Your task to perform on an android device: Turn on the flashlight Image 0: 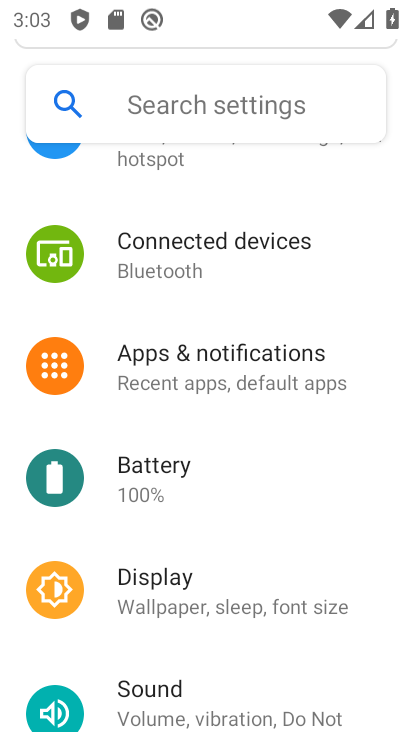
Step 0: click (212, 114)
Your task to perform on an android device: Turn on the flashlight Image 1: 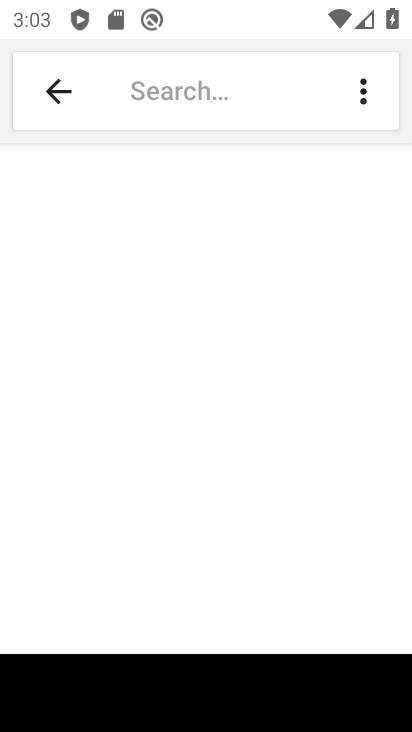
Step 1: type "flashlight"
Your task to perform on an android device: Turn on the flashlight Image 2: 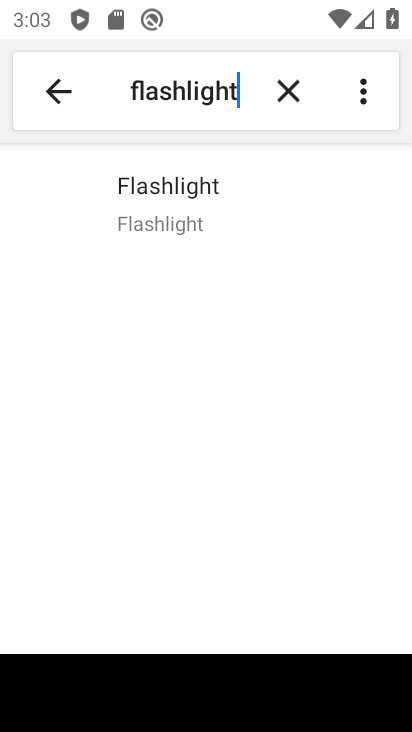
Step 2: click (194, 204)
Your task to perform on an android device: Turn on the flashlight Image 3: 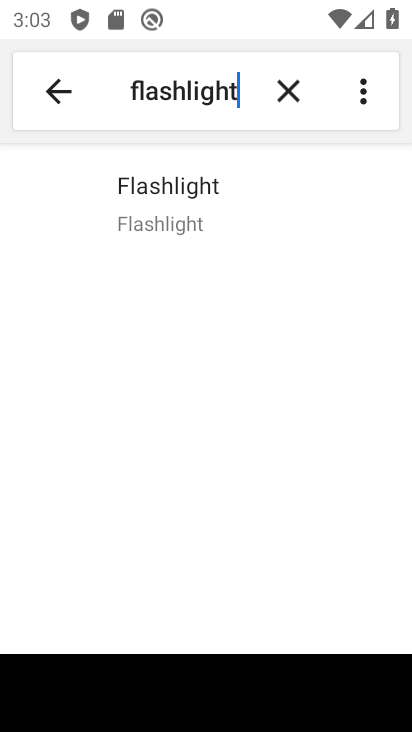
Step 3: click (194, 204)
Your task to perform on an android device: Turn on the flashlight Image 4: 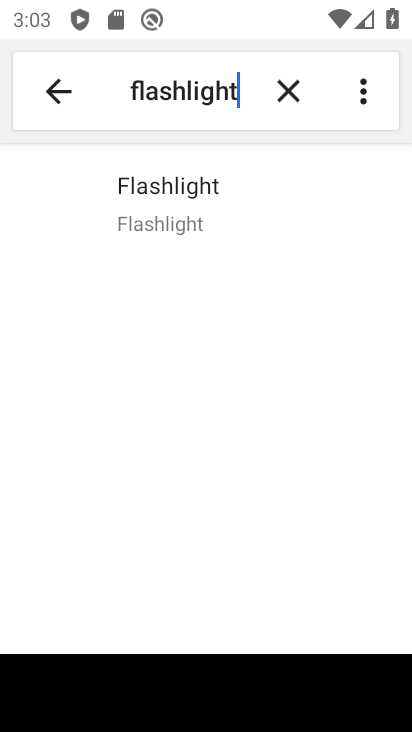
Step 4: task complete